Your task to perform on an android device: Open calendar and show me the fourth week of next month Image 0: 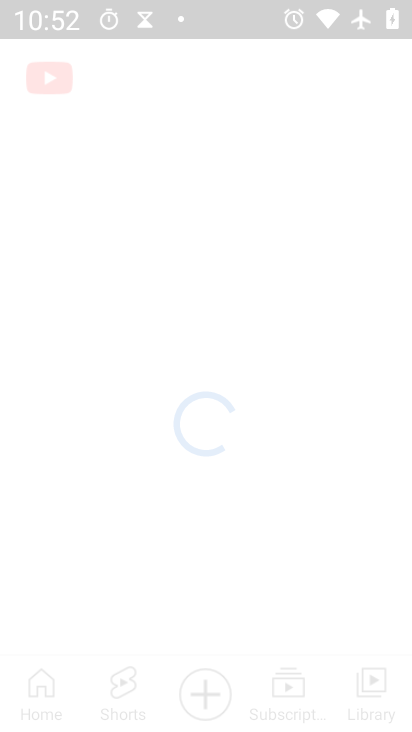
Step 0: press home button
Your task to perform on an android device: Open calendar and show me the fourth week of next month Image 1: 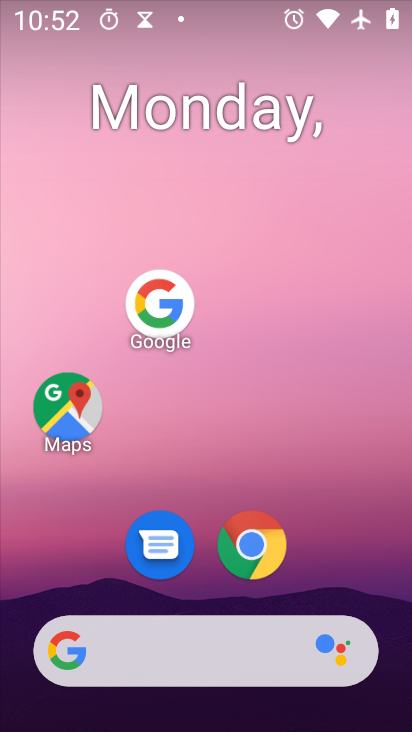
Step 1: drag from (219, 637) to (300, 35)
Your task to perform on an android device: Open calendar and show me the fourth week of next month Image 2: 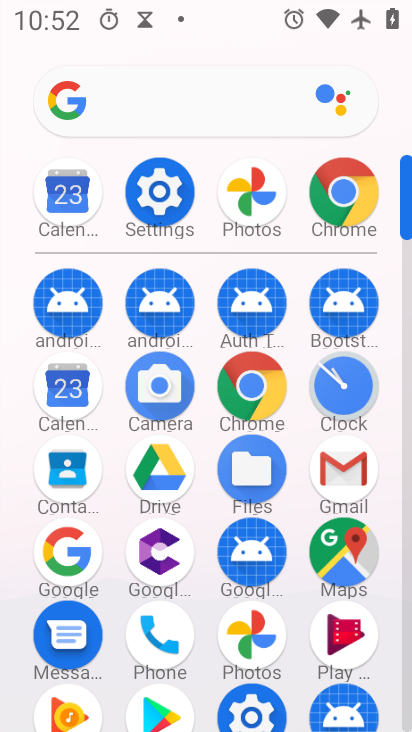
Step 2: click (66, 393)
Your task to perform on an android device: Open calendar and show me the fourth week of next month Image 3: 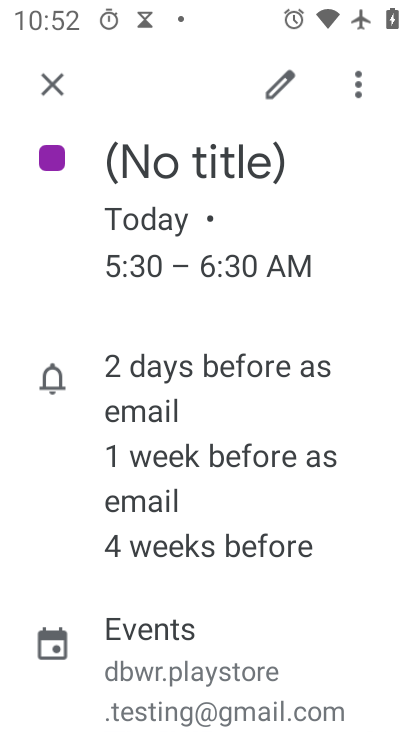
Step 3: click (59, 80)
Your task to perform on an android device: Open calendar and show me the fourth week of next month Image 4: 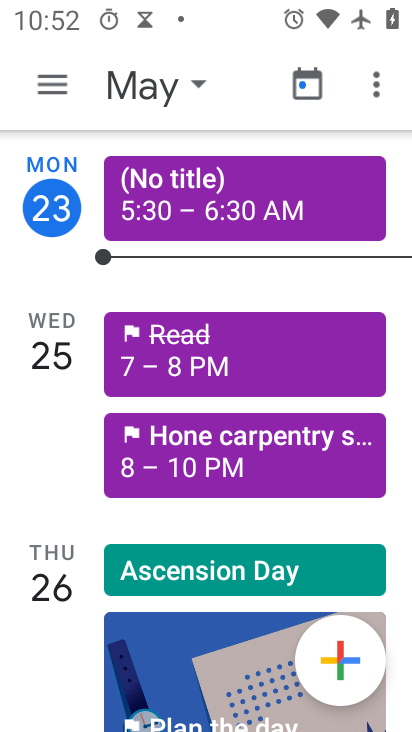
Step 4: click (146, 89)
Your task to perform on an android device: Open calendar and show me the fourth week of next month Image 5: 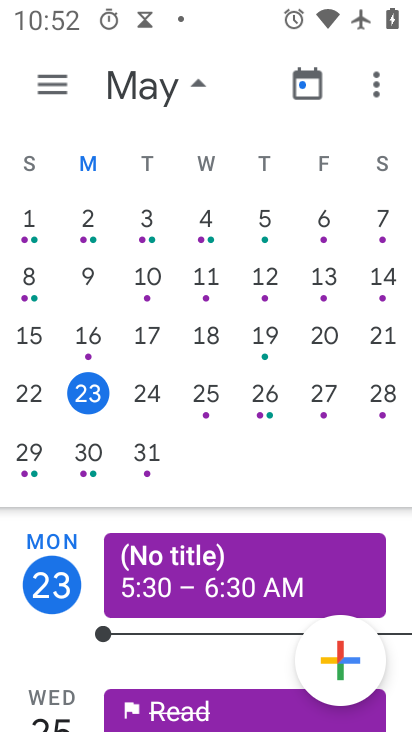
Step 5: drag from (381, 370) to (94, 342)
Your task to perform on an android device: Open calendar and show me the fourth week of next month Image 6: 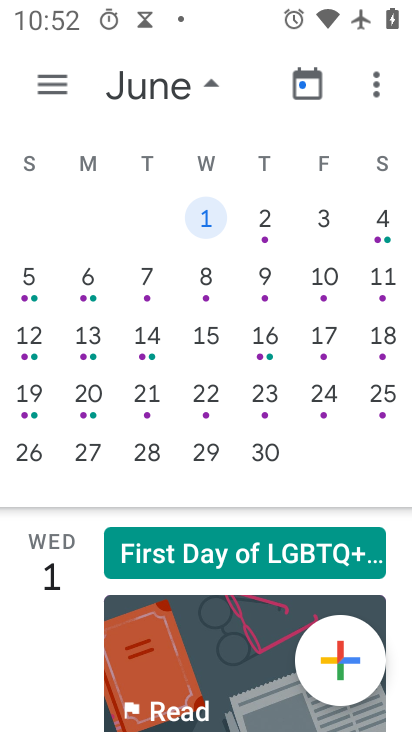
Step 6: click (34, 394)
Your task to perform on an android device: Open calendar and show me the fourth week of next month Image 7: 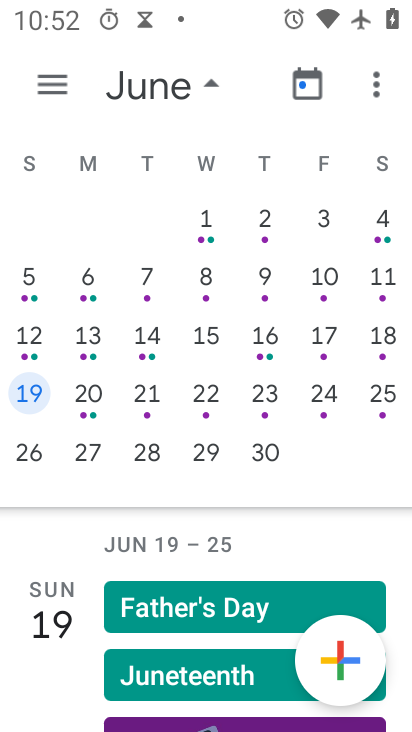
Step 7: click (63, 90)
Your task to perform on an android device: Open calendar and show me the fourth week of next month Image 8: 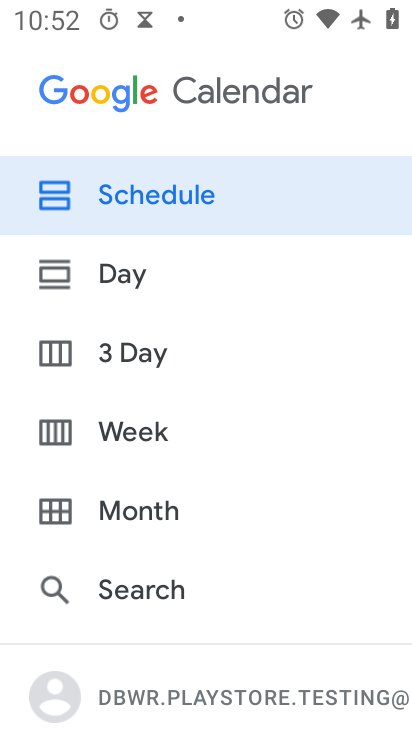
Step 8: click (139, 441)
Your task to perform on an android device: Open calendar and show me the fourth week of next month Image 9: 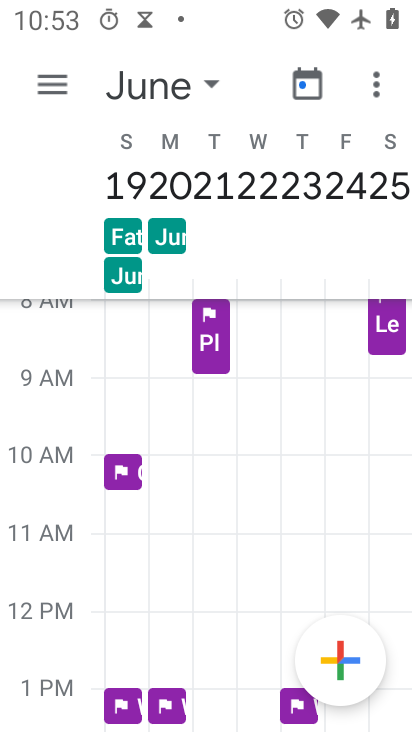
Step 9: task complete